Your task to perform on an android device: turn on airplane mode Image 0: 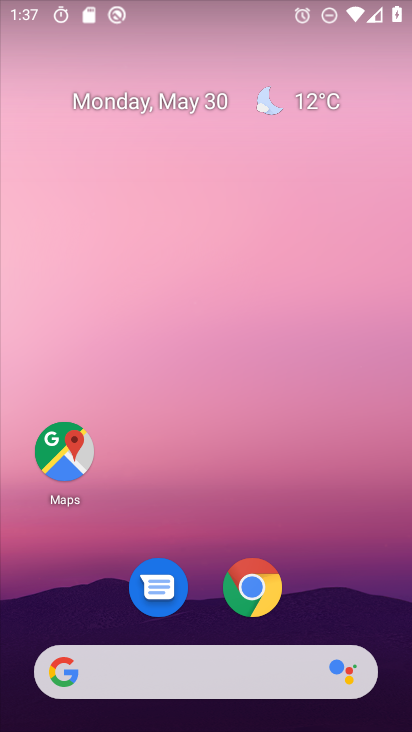
Step 0: drag from (349, 516) to (323, 138)
Your task to perform on an android device: turn on airplane mode Image 1: 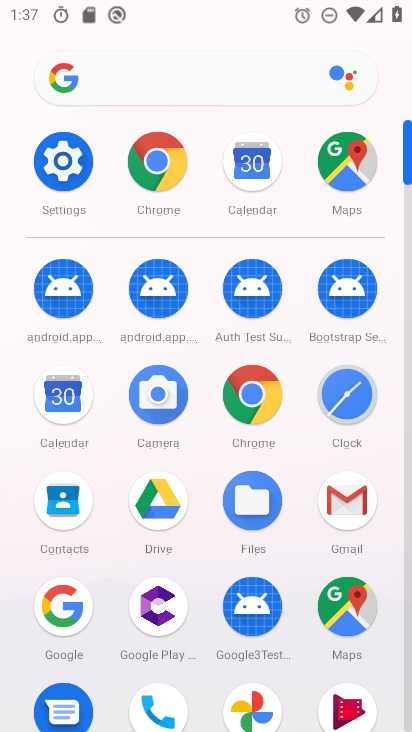
Step 1: click (49, 148)
Your task to perform on an android device: turn on airplane mode Image 2: 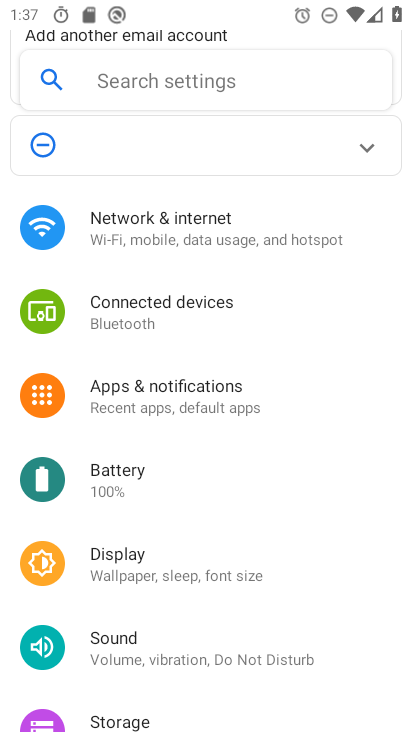
Step 2: drag from (200, 448) to (226, 177)
Your task to perform on an android device: turn on airplane mode Image 3: 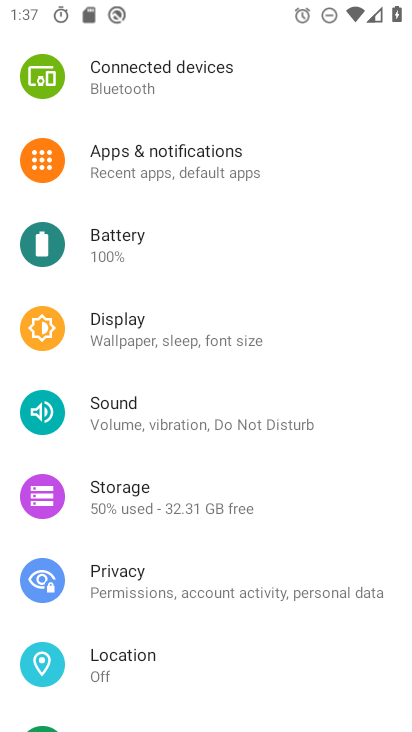
Step 3: drag from (260, 133) to (248, 513)
Your task to perform on an android device: turn on airplane mode Image 4: 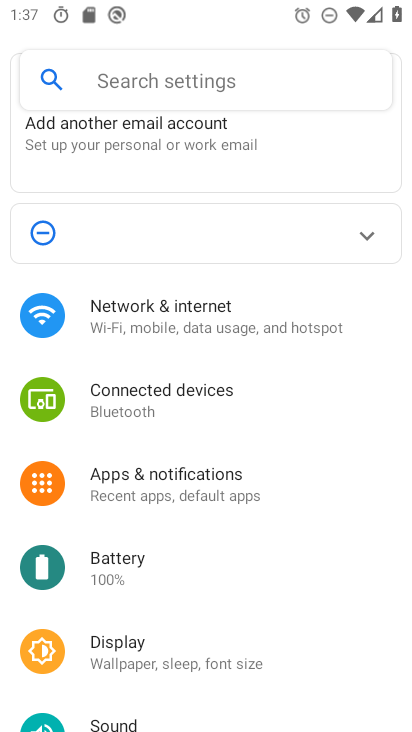
Step 4: click (222, 301)
Your task to perform on an android device: turn on airplane mode Image 5: 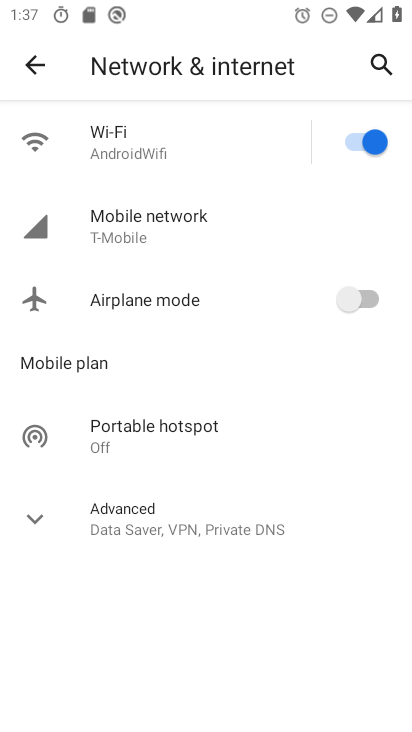
Step 5: click (360, 320)
Your task to perform on an android device: turn on airplane mode Image 6: 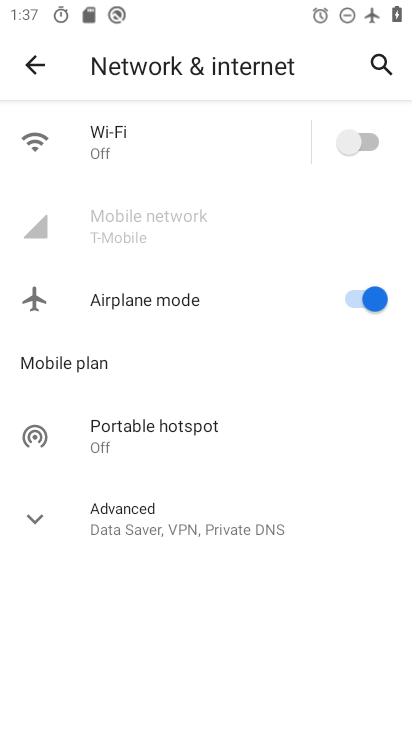
Step 6: task complete